Your task to perform on an android device: change timer sound Image 0: 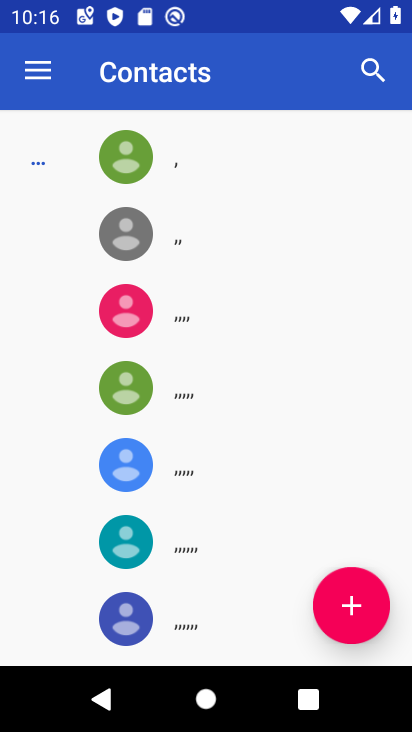
Step 0: press home button
Your task to perform on an android device: change timer sound Image 1: 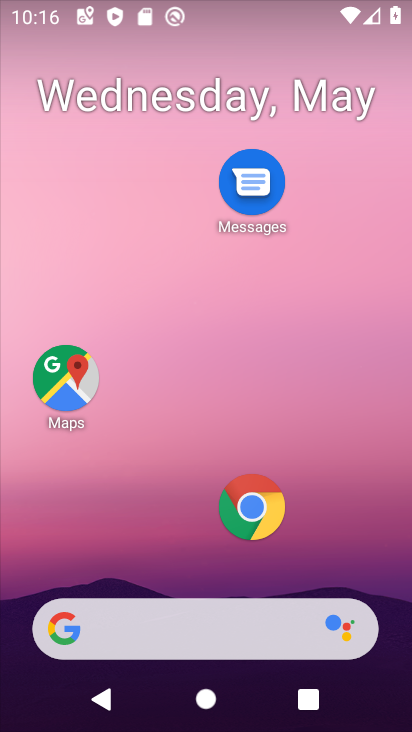
Step 1: press home button
Your task to perform on an android device: change timer sound Image 2: 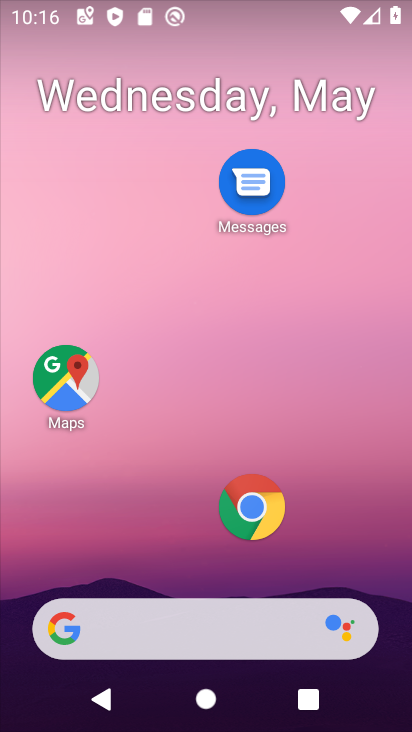
Step 2: drag from (203, 575) to (235, 105)
Your task to perform on an android device: change timer sound Image 3: 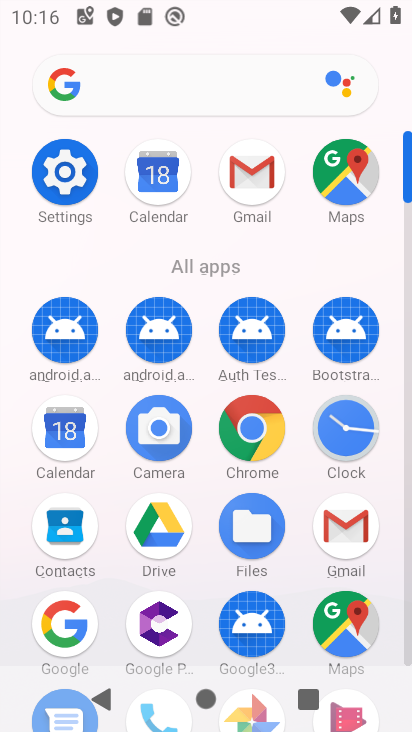
Step 3: click (341, 420)
Your task to perform on an android device: change timer sound Image 4: 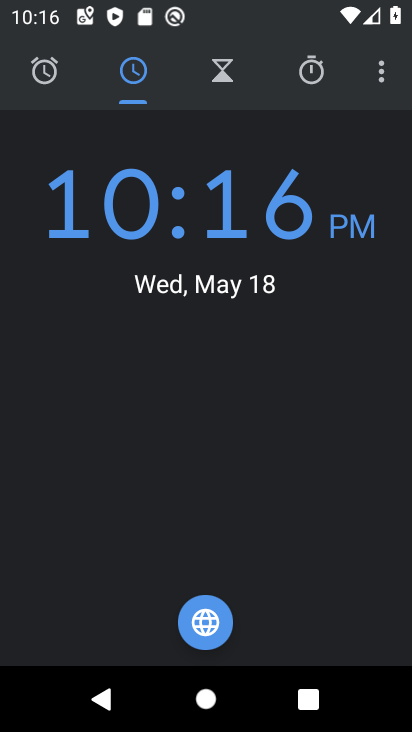
Step 4: click (381, 73)
Your task to perform on an android device: change timer sound Image 5: 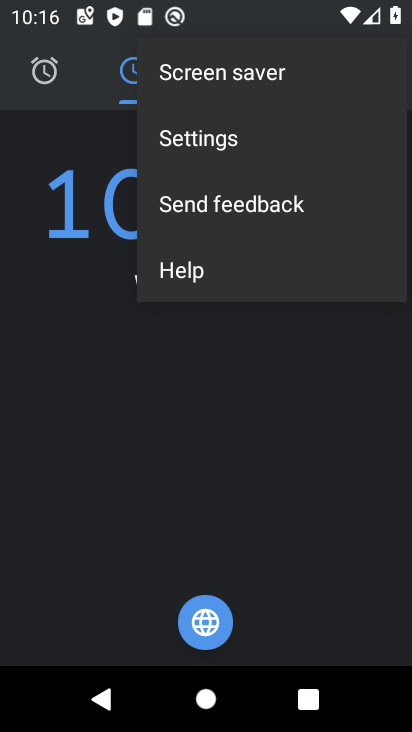
Step 5: click (253, 138)
Your task to perform on an android device: change timer sound Image 6: 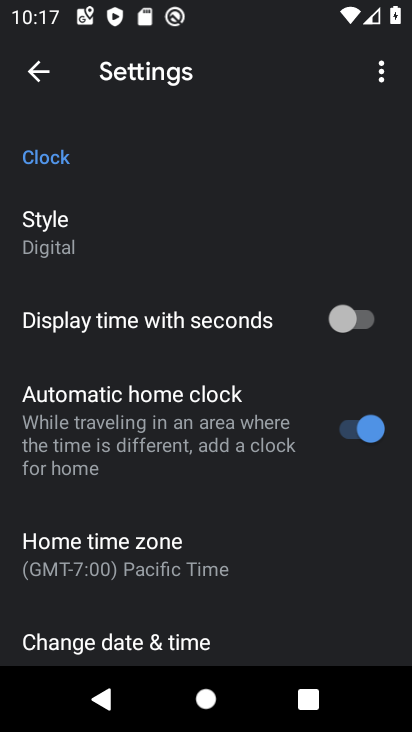
Step 6: drag from (240, 613) to (272, 63)
Your task to perform on an android device: change timer sound Image 7: 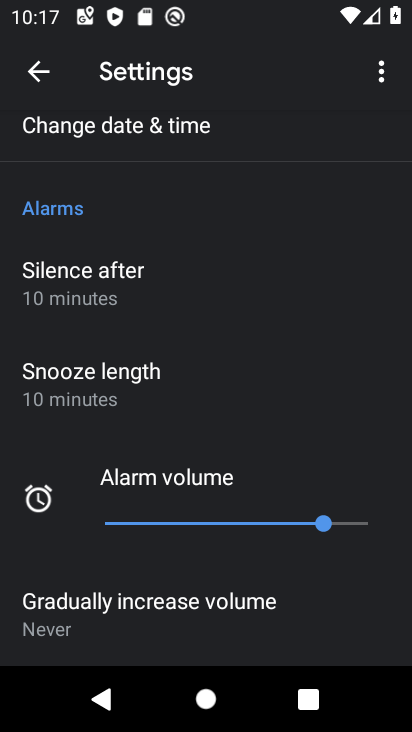
Step 7: drag from (223, 619) to (240, 168)
Your task to perform on an android device: change timer sound Image 8: 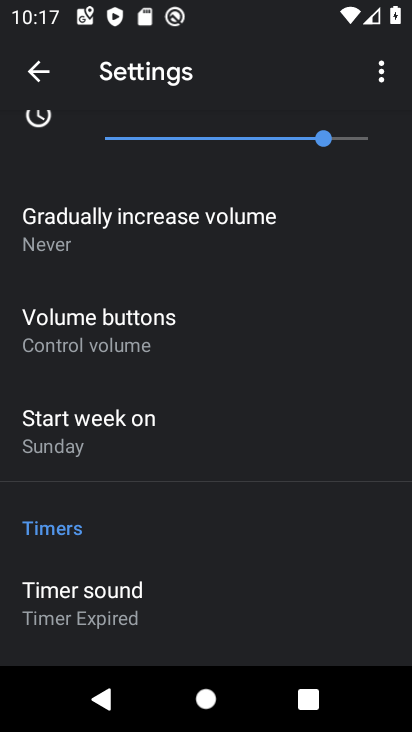
Step 8: click (161, 603)
Your task to perform on an android device: change timer sound Image 9: 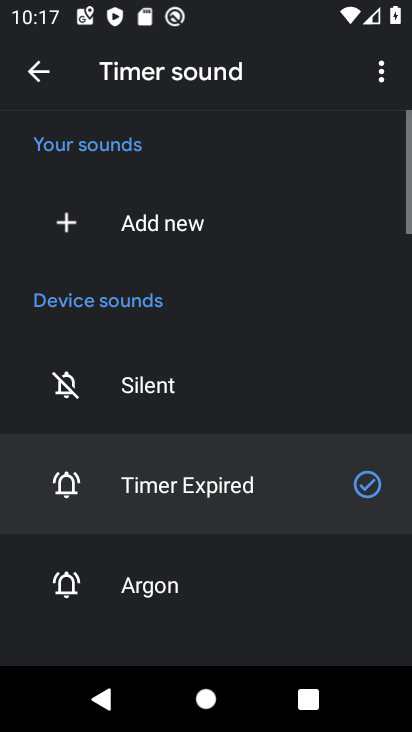
Step 9: click (211, 581)
Your task to perform on an android device: change timer sound Image 10: 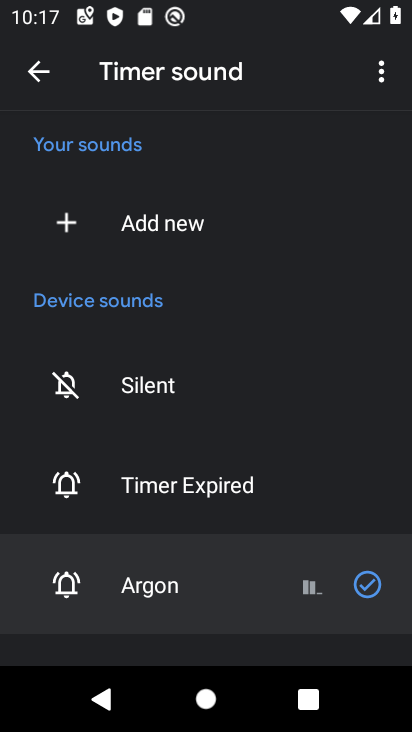
Step 10: task complete